Your task to perform on an android device: find photos in the google photos app Image 0: 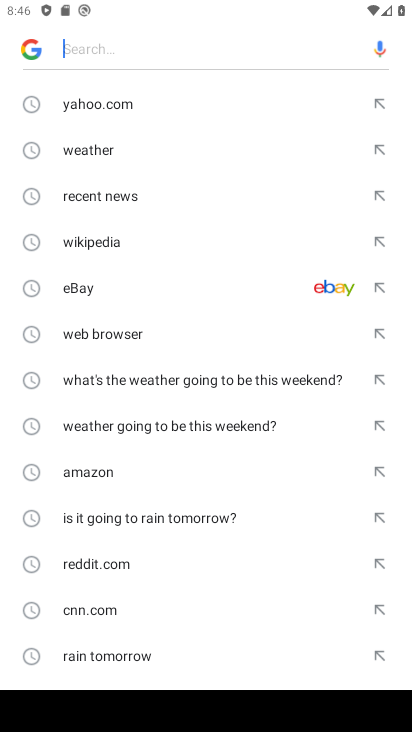
Step 0: press home button
Your task to perform on an android device: find photos in the google photos app Image 1: 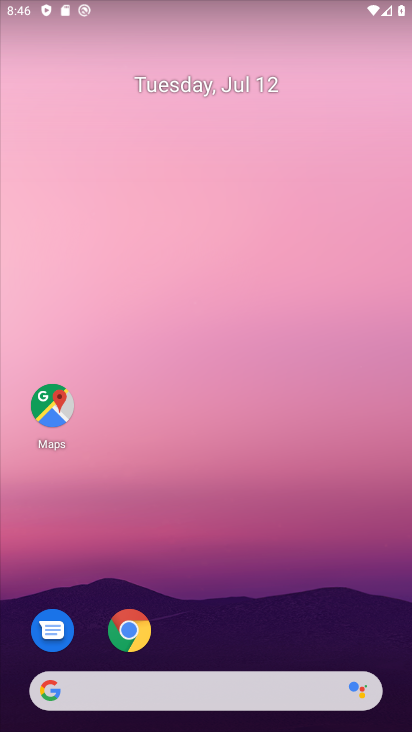
Step 1: drag from (265, 573) to (252, 65)
Your task to perform on an android device: find photos in the google photos app Image 2: 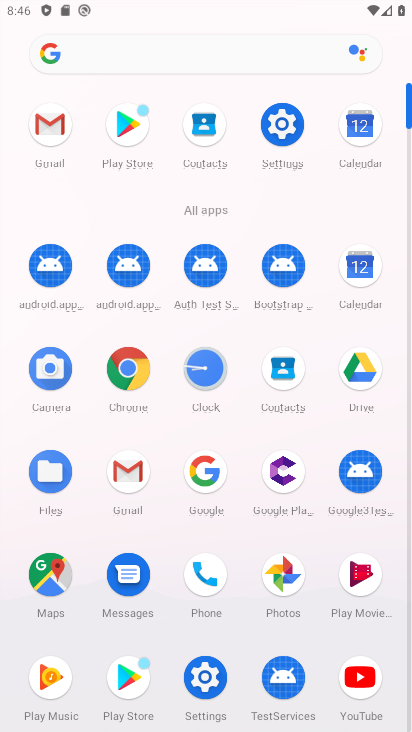
Step 2: click (294, 571)
Your task to perform on an android device: find photos in the google photos app Image 3: 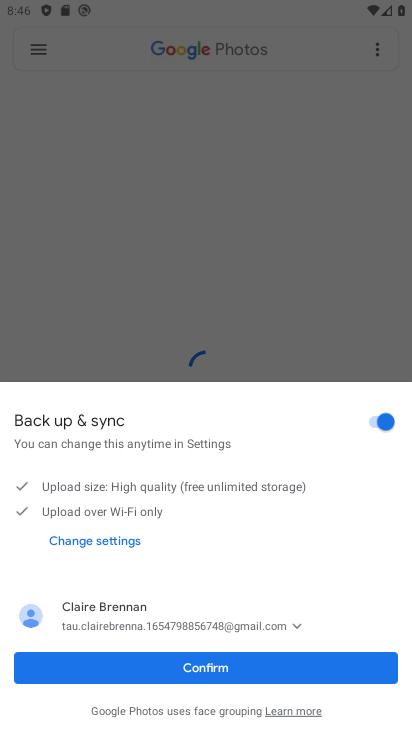
Step 3: click (169, 665)
Your task to perform on an android device: find photos in the google photos app Image 4: 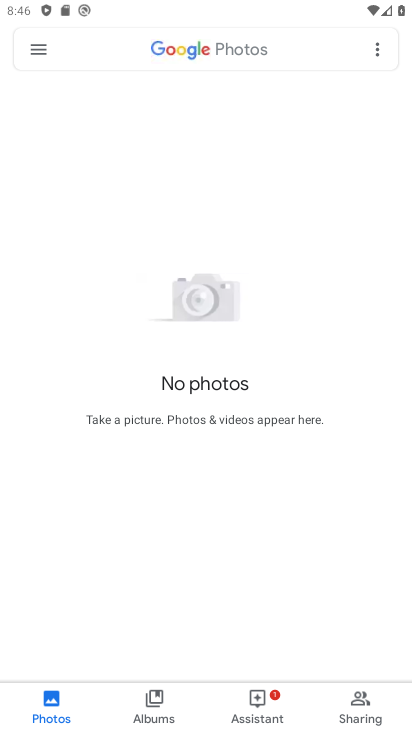
Step 4: task complete